Your task to perform on an android device: Go to privacy settings Image 0: 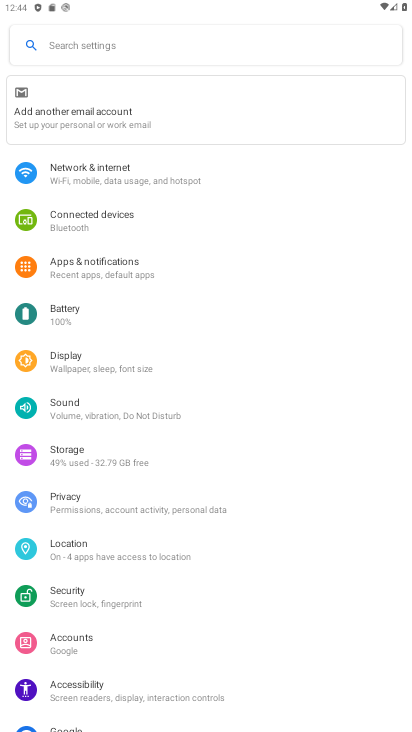
Step 0: press home button
Your task to perform on an android device: Go to privacy settings Image 1: 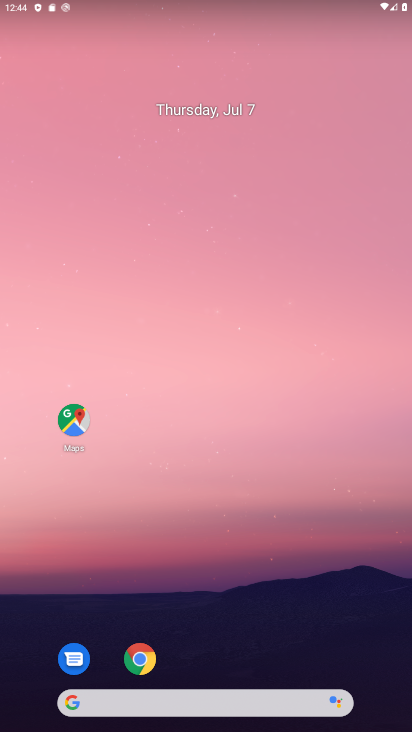
Step 1: drag from (194, 694) to (301, 115)
Your task to perform on an android device: Go to privacy settings Image 2: 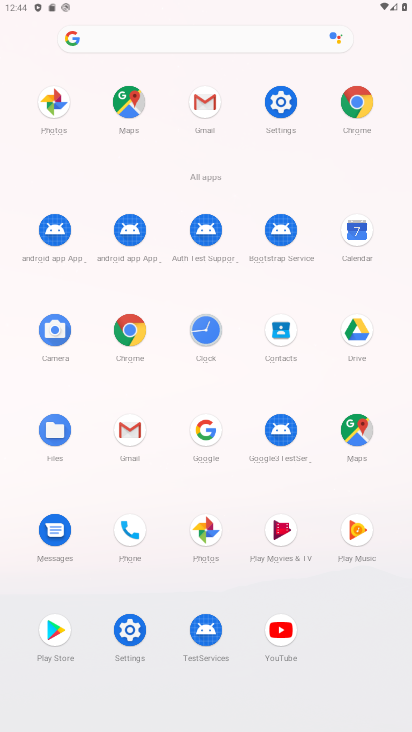
Step 2: click (139, 341)
Your task to perform on an android device: Go to privacy settings Image 3: 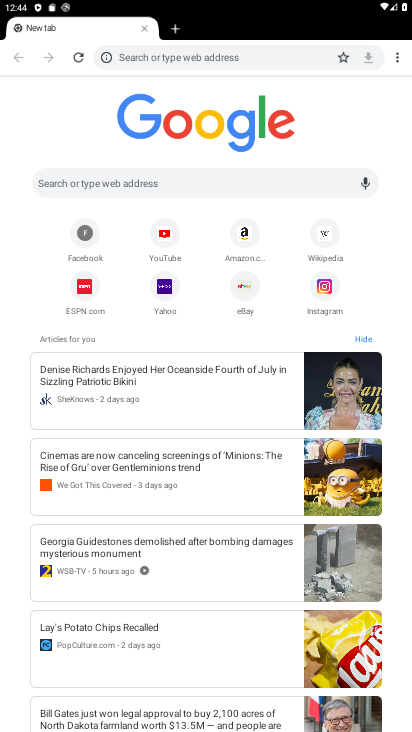
Step 3: drag from (395, 52) to (345, 259)
Your task to perform on an android device: Go to privacy settings Image 4: 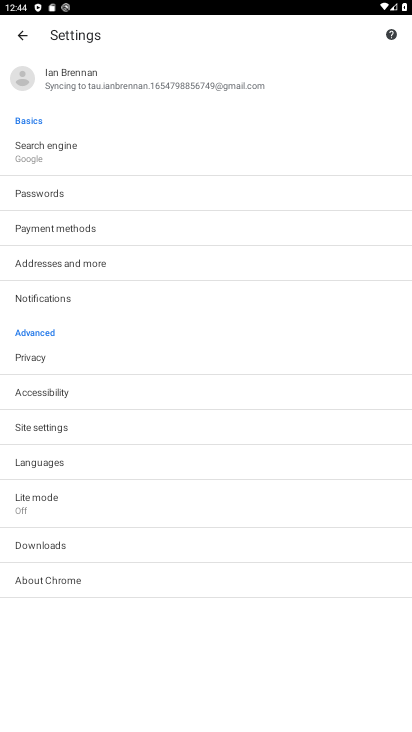
Step 4: click (93, 358)
Your task to perform on an android device: Go to privacy settings Image 5: 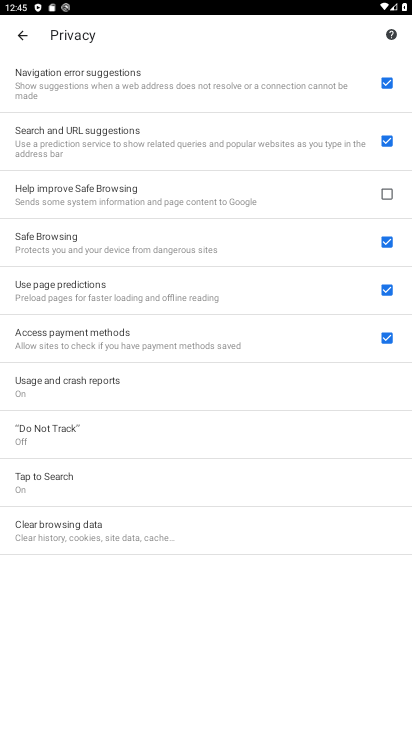
Step 5: task complete